Your task to perform on an android device: Go to calendar. Show me events next week Image 0: 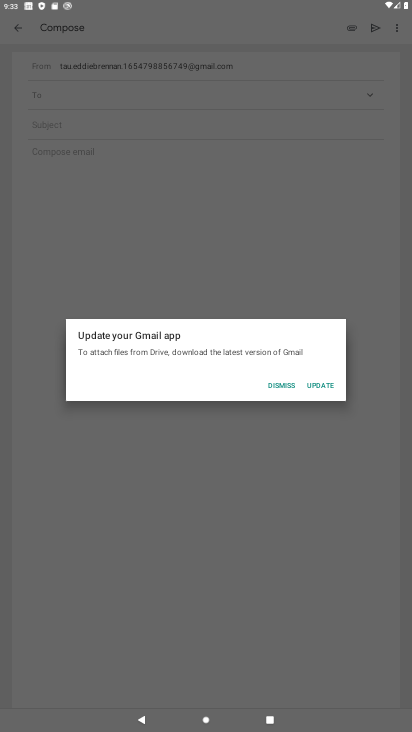
Step 0: press home button
Your task to perform on an android device: Go to calendar. Show me events next week Image 1: 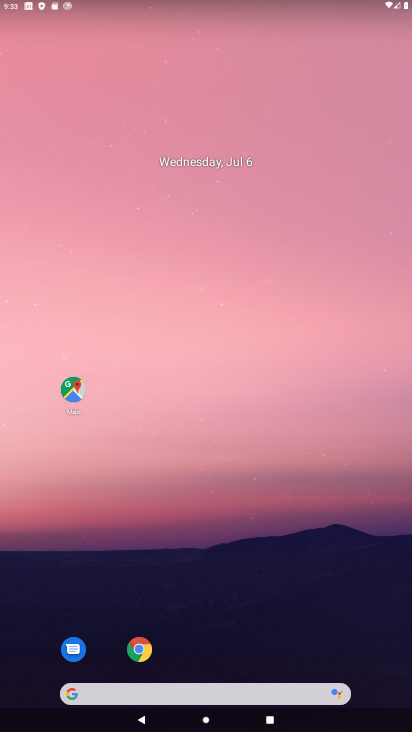
Step 1: drag from (211, 690) to (262, 137)
Your task to perform on an android device: Go to calendar. Show me events next week Image 2: 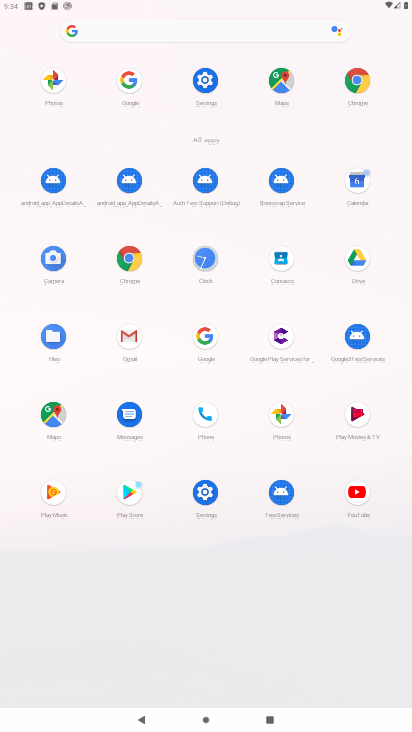
Step 2: click (362, 183)
Your task to perform on an android device: Go to calendar. Show me events next week Image 3: 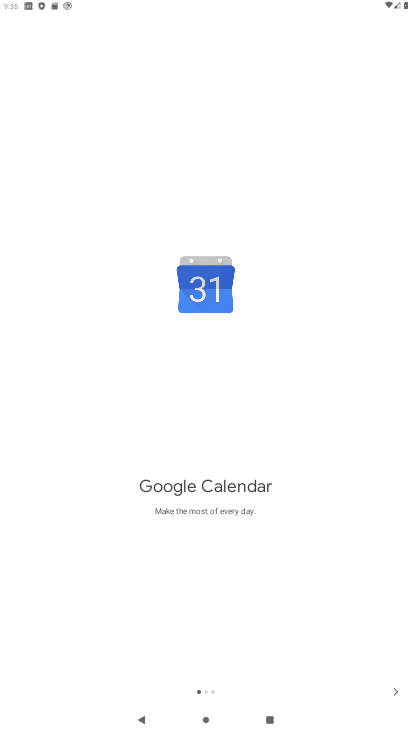
Step 3: click (396, 694)
Your task to perform on an android device: Go to calendar. Show me events next week Image 4: 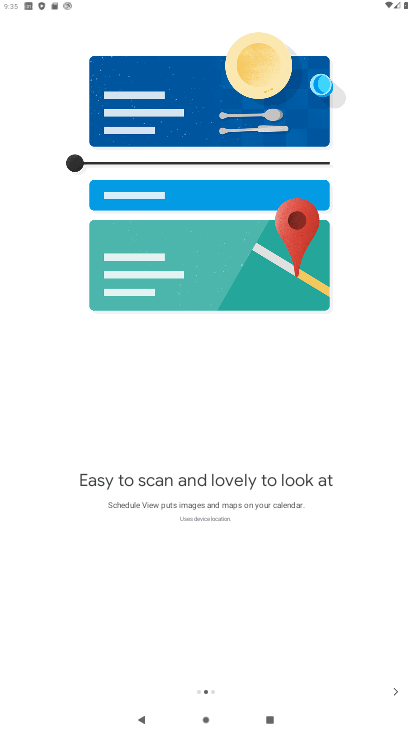
Step 4: click (396, 694)
Your task to perform on an android device: Go to calendar. Show me events next week Image 5: 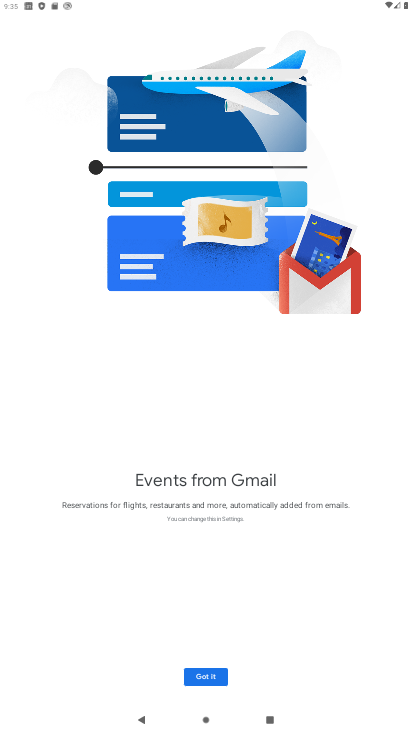
Step 5: click (210, 679)
Your task to perform on an android device: Go to calendar. Show me events next week Image 6: 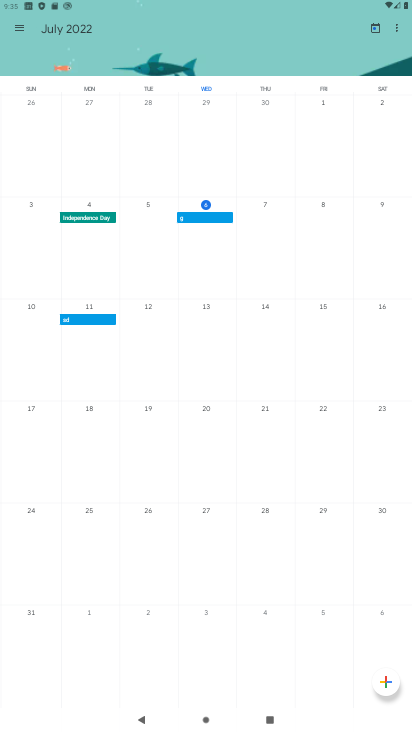
Step 6: click (16, 33)
Your task to perform on an android device: Go to calendar. Show me events next week Image 7: 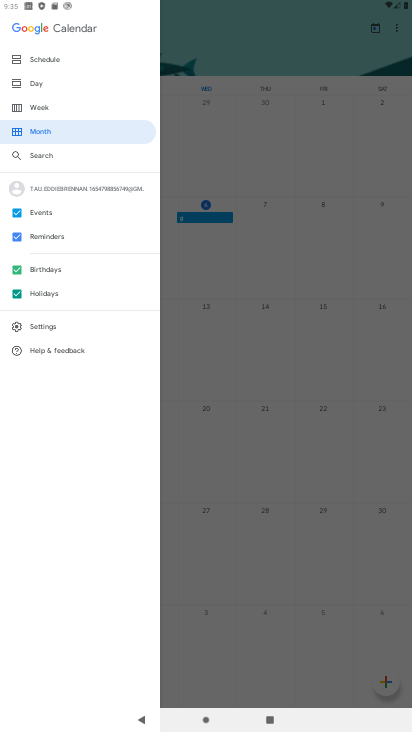
Step 7: click (45, 111)
Your task to perform on an android device: Go to calendar. Show me events next week Image 8: 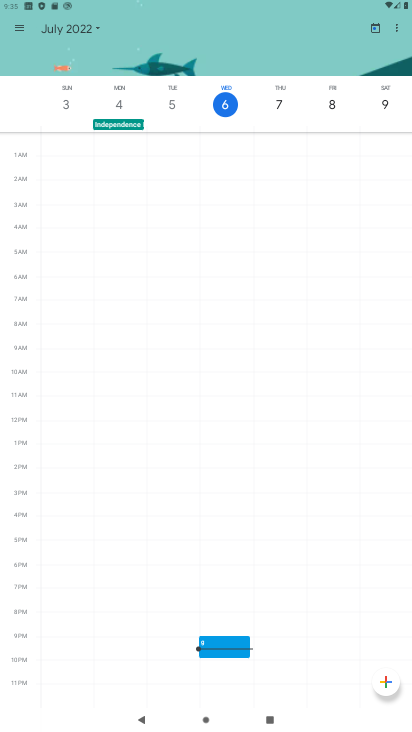
Step 8: task complete